Your task to perform on an android device: open chrome privacy settings Image 0: 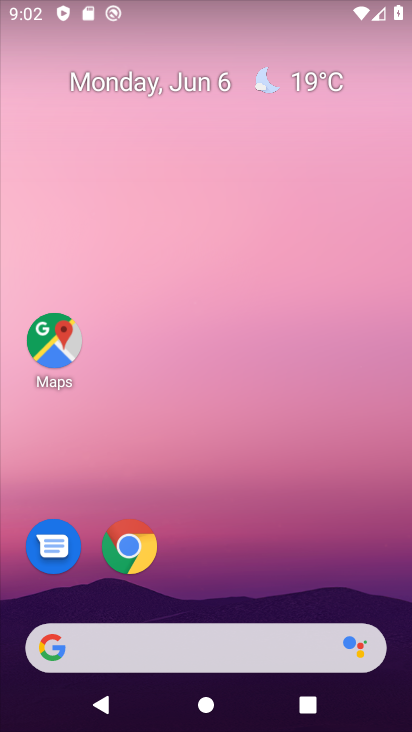
Step 0: click (135, 548)
Your task to perform on an android device: open chrome privacy settings Image 1: 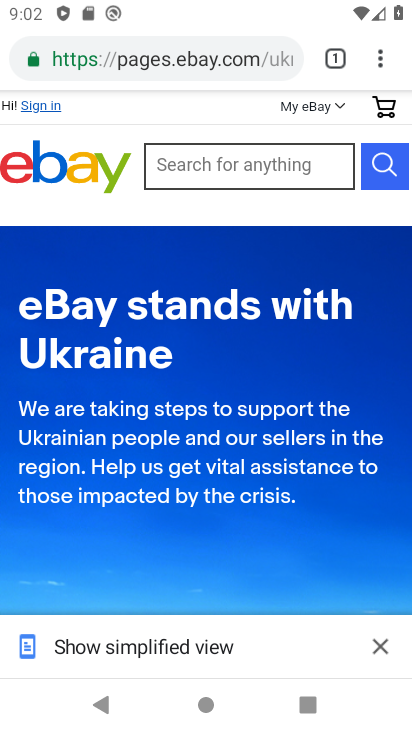
Step 1: click (376, 54)
Your task to perform on an android device: open chrome privacy settings Image 2: 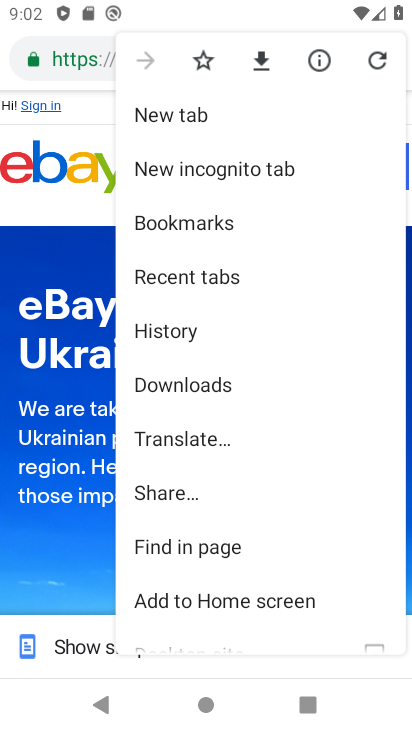
Step 2: drag from (331, 575) to (311, 297)
Your task to perform on an android device: open chrome privacy settings Image 3: 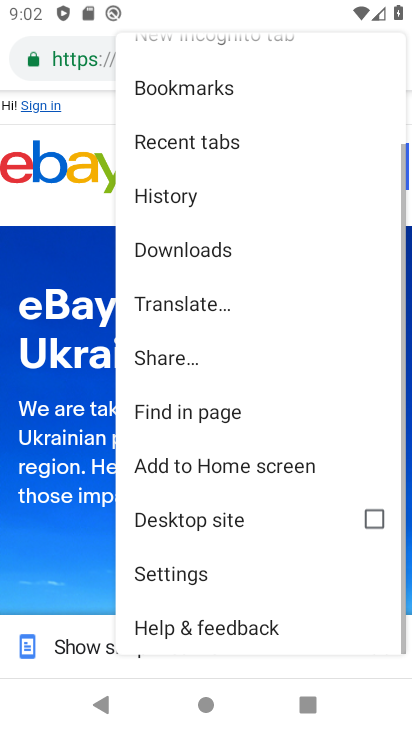
Step 3: click (189, 576)
Your task to perform on an android device: open chrome privacy settings Image 4: 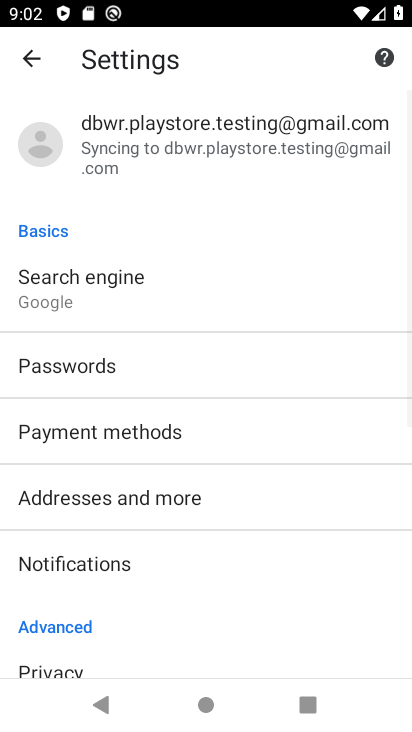
Step 4: click (60, 675)
Your task to perform on an android device: open chrome privacy settings Image 5: 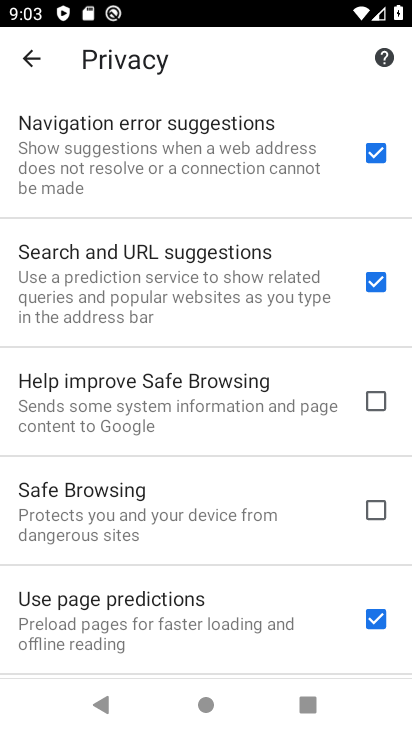
Step 5: task complete